Your task to perform on an android device: turn off notifications in google photos Image 0: 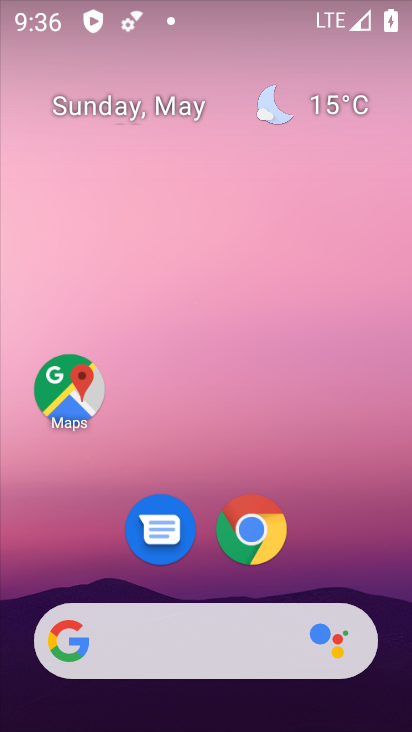
Step 0: drag from (228, 670) to (286, 244)
Your task to perform on an android device: turn off notifications in google photos Image 1: 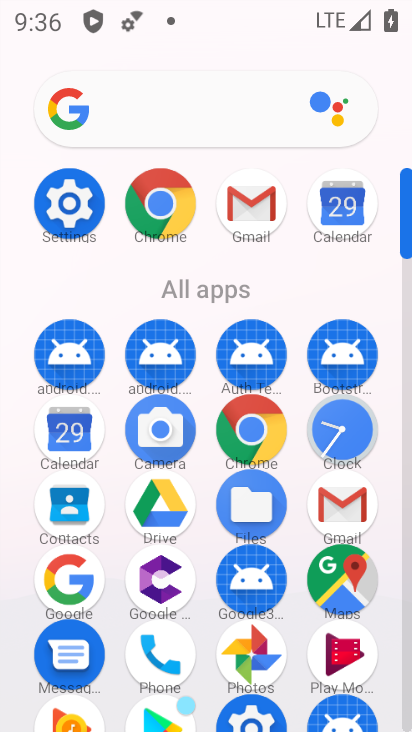
Step 1: click (259, 648)
Your task to perform on an android device: turn off notifications in google photos Image 2: 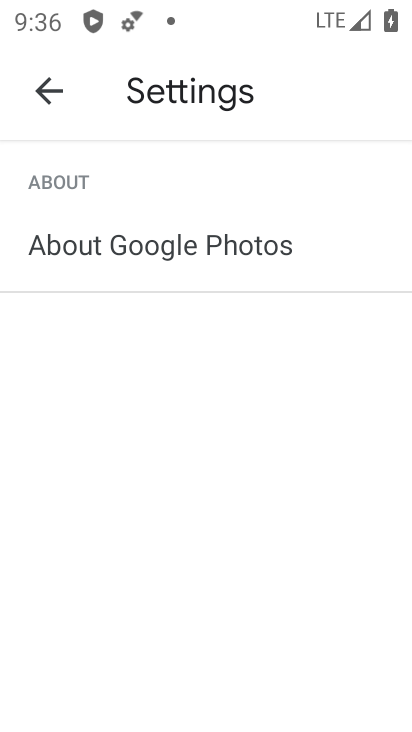
Step 2: press back button
Your task to perform on an android device: turn off notifications in google photos Image 3: 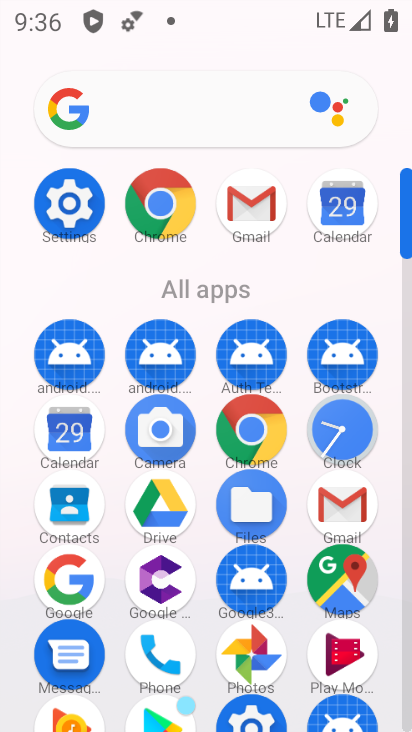
Step 3: click (258, 658)
Your task to perform on an android device: turn off notifications in google photos Image 4: 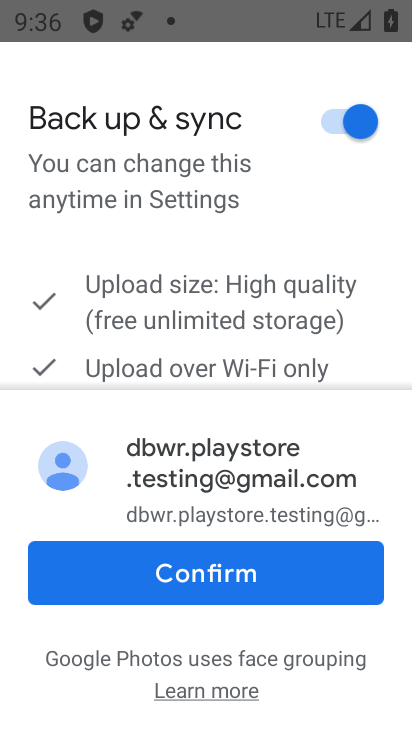
Step 4: click (52, 86)
Your task to perform on an android device: turn off notifications in google photos Image 5: 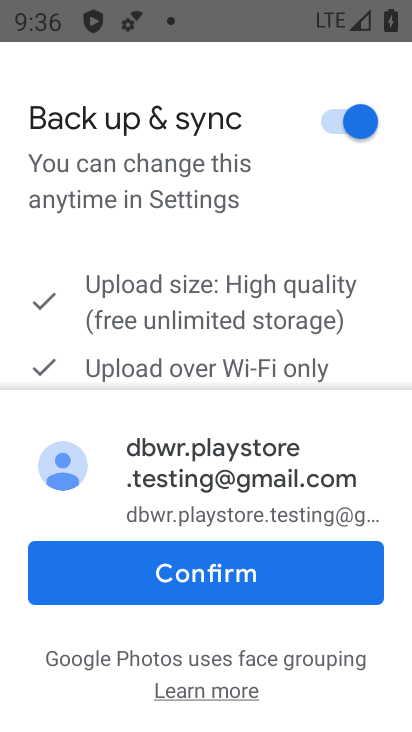
Step 5: click (216, 570)
Your task to perform on an android device: turn off notifications in google photos Image 6: 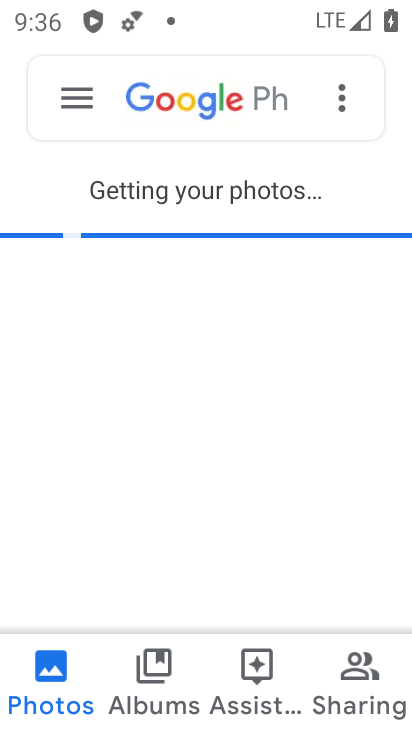
Step 6: click (52, 87)
Your task to perform on an android device: turn off notifications in google photos Image 7: 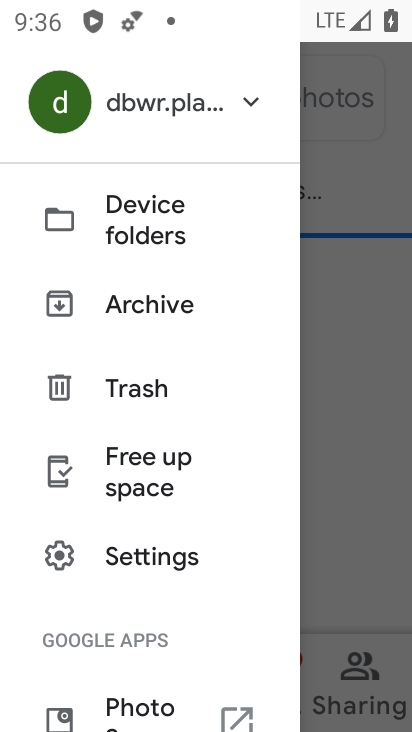
Step 7: click (163, 561)
Your task to perform on an android device: turn off notifications in google photos Image 8: 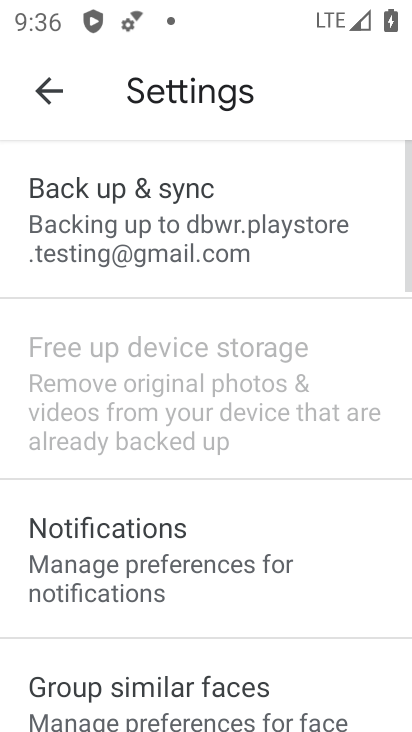
Step 8: click (207, 228)
Your task to perform on an android device: turn off notifications in google photos Image 9: 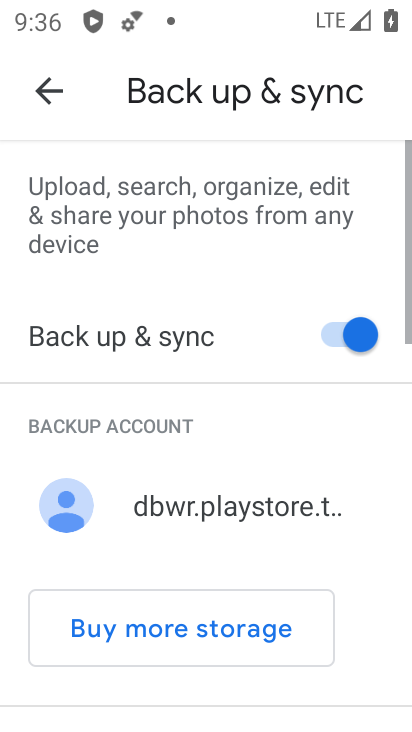
Step 9: press back button
Your task to perform on an android device: turn off notifications in google photos Image 10: 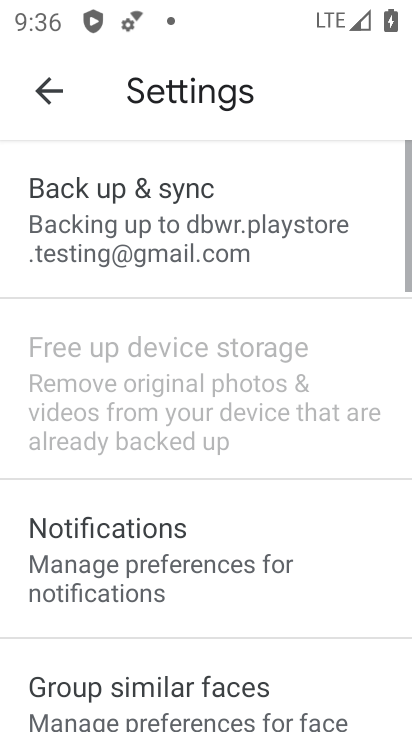
Step 10: click (241, 574)
Your task to perform on an android device: turn off notifications in google photos Image 11: 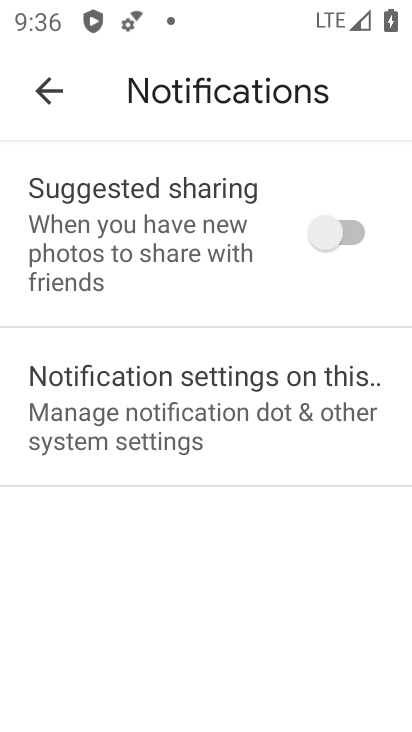
Step 11: click (272, 430)
Your task to perform on an android device: turn off notifications in google photos Image 12: 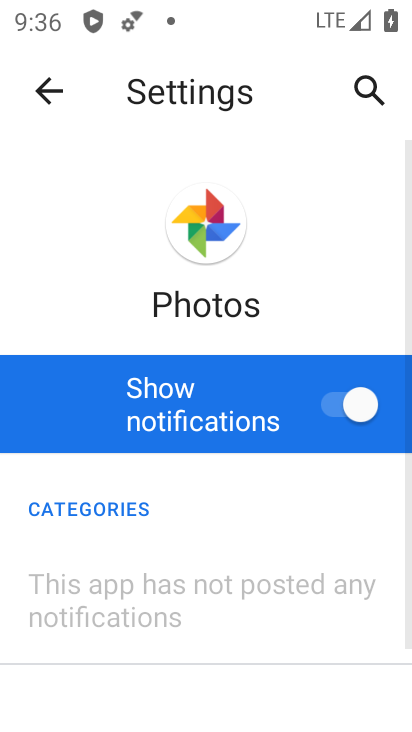
Step 12: click (332, 405)
Your task to perform on an android device: turn off notifications in google photos Image 13: 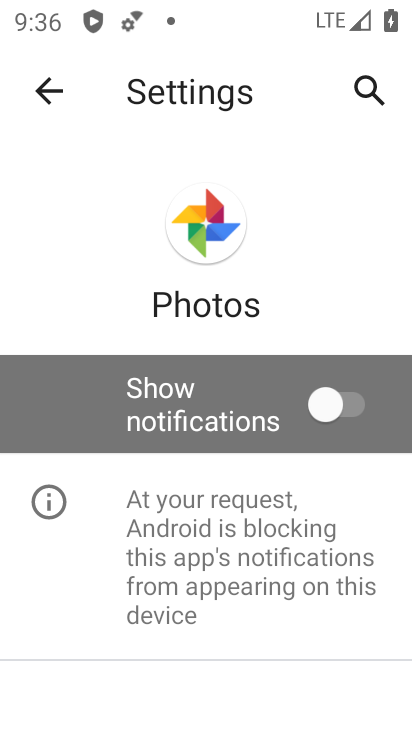
Step 13: task complete